Your task to perform on an android device: Open display settings Image 0: 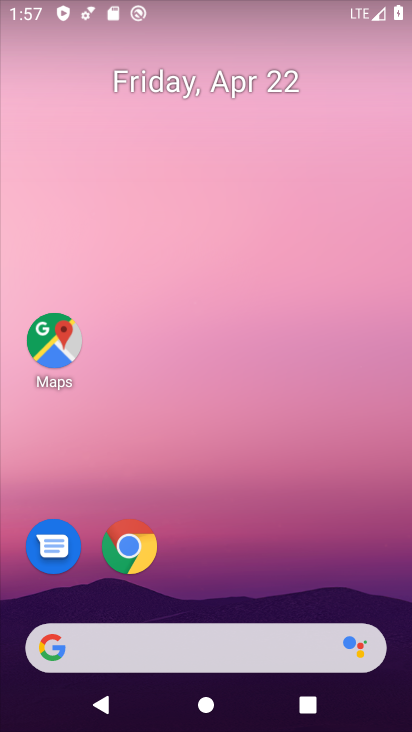
Step 0: drag from (233, 606) to (293, 183)
Your task to perform on an android device: Open display settings Image 1: 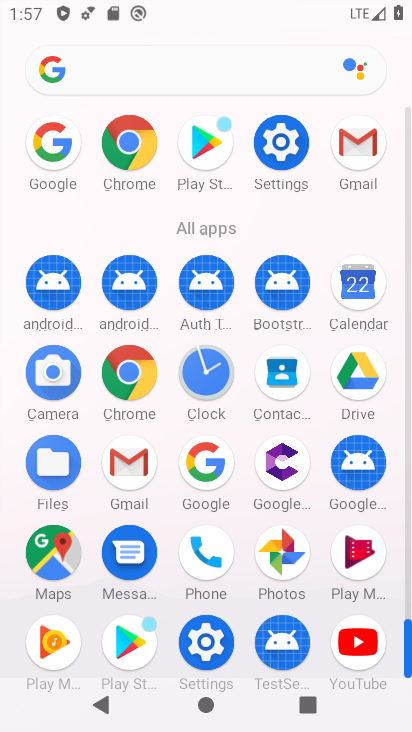
Step 1: click (214, 643)
Your task to perform on an android device: Open display settings Image 2: 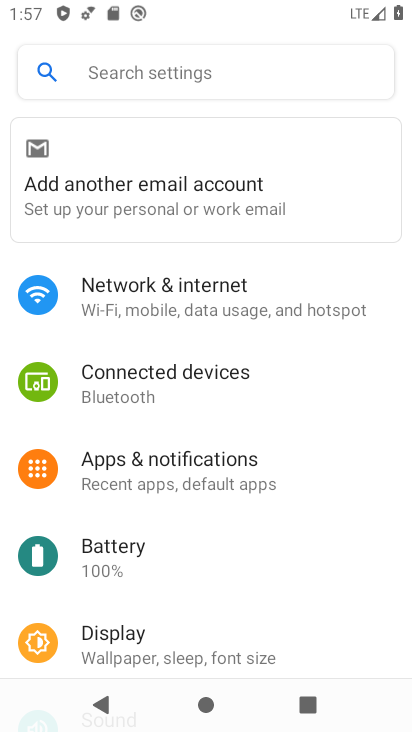
Step 2: drag from (216, 522) to (247, 364)
Your task to perform on an android device: Open display settings Image 3: 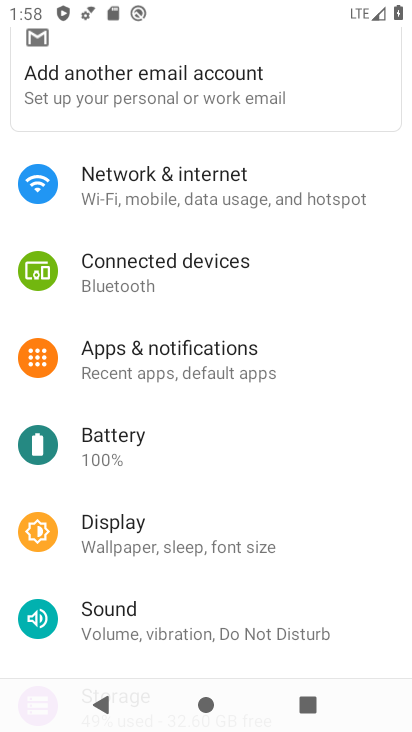
Step 3: drag from (196, 524) to (241, 346)
Your task to perform on an android device: Open display settings Image 4: 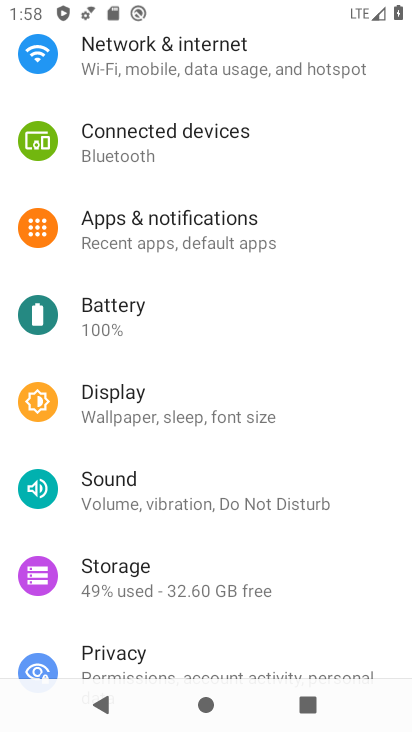
Step 4: click (201, 407)
Your task to perform on an android device: Open display settings Image 5: 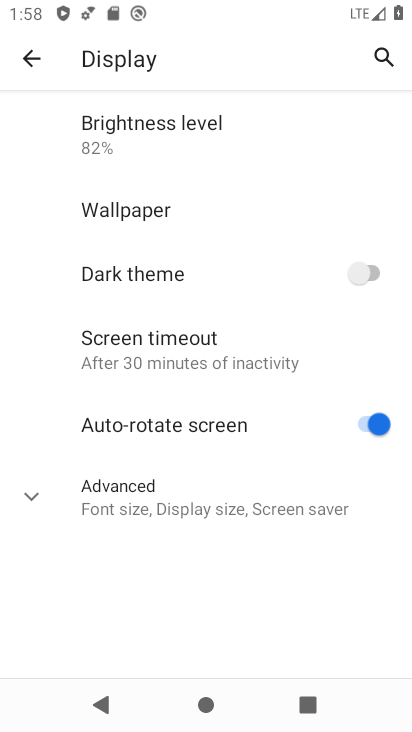
Step 5: click (180, 506)
Your task to perform on an android device: Open display settings Image 6: 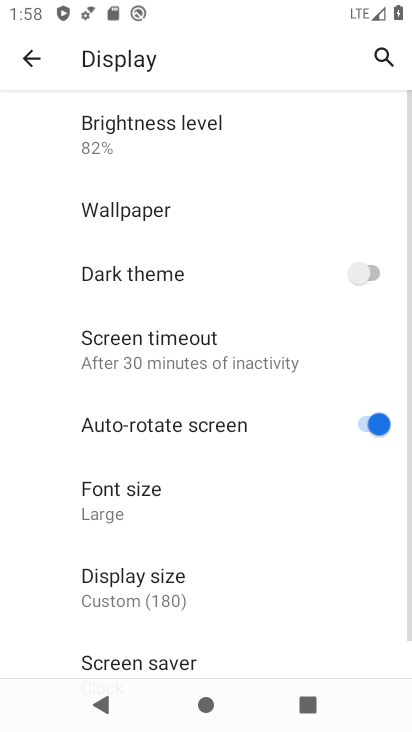
Step 6: task complete